Your task to perform on an android device: Open settings Image 0: 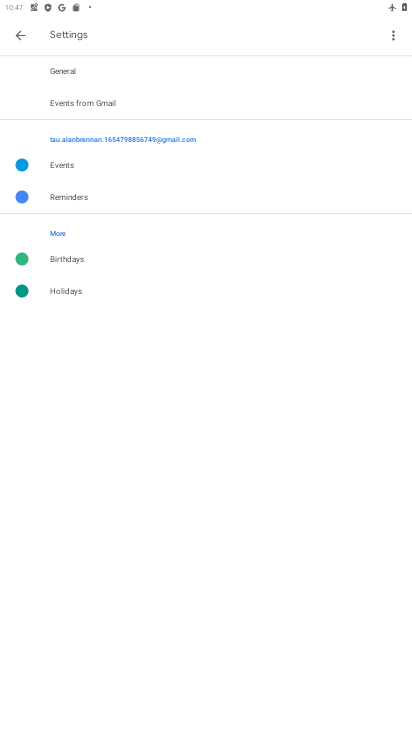
Step 0: press home button
Your task to perform on an android device: Open settings Image 1: 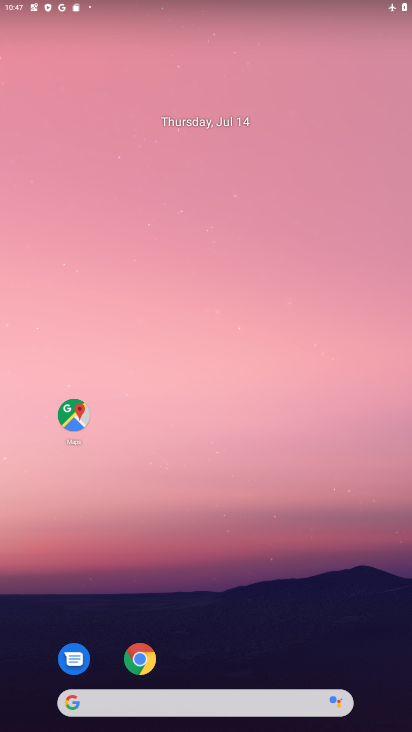
Step 1: drag from (254, 628) to (278, 152)
Your task to perform on an android device: Open settings Image 2: 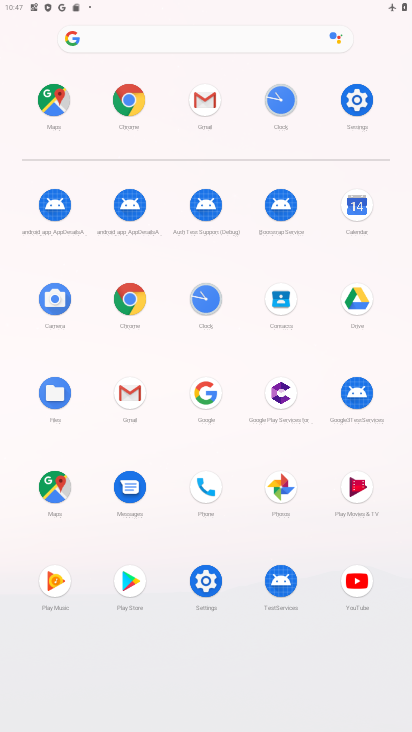
Step 2: click (362, 105)
Your task to perform on an android device: Open settings Image 3: 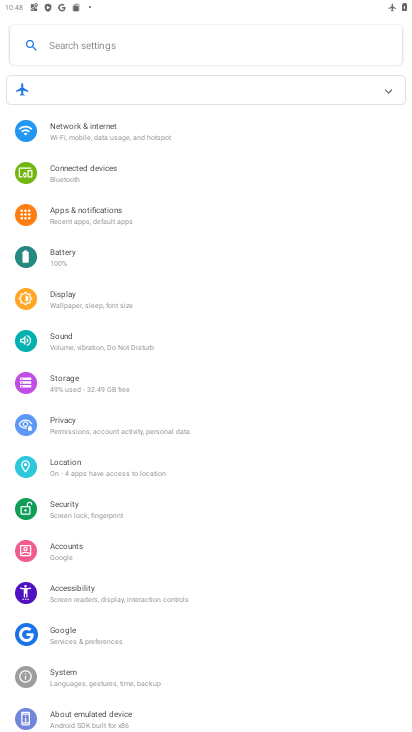
Step 3: task complete